Your task to perform on an android device: see sites visited before in the chrome app Image 0: 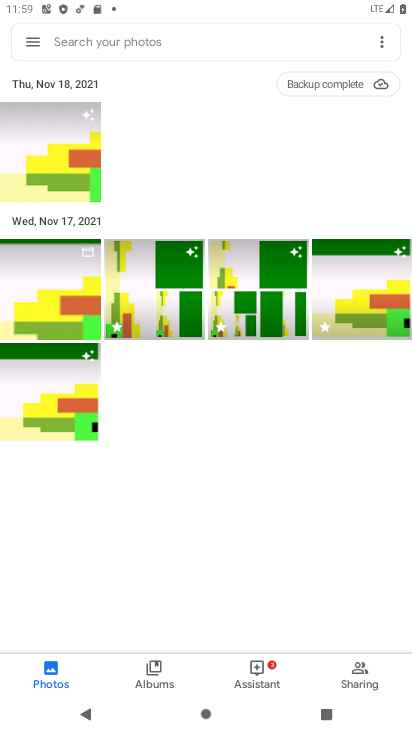
Step 0: press home button
Your task to perform on an android device: see sites visited before in the chrome app Image 1: 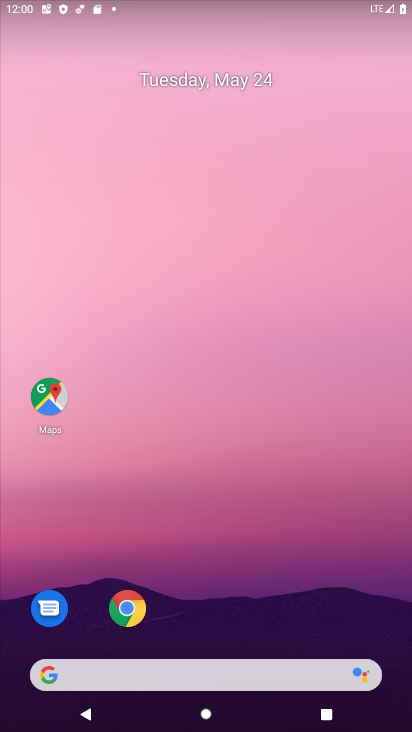
Step 1: click (123, 603)
Your task to perform on an android device: see sites visited before in the chrome app Image 2: 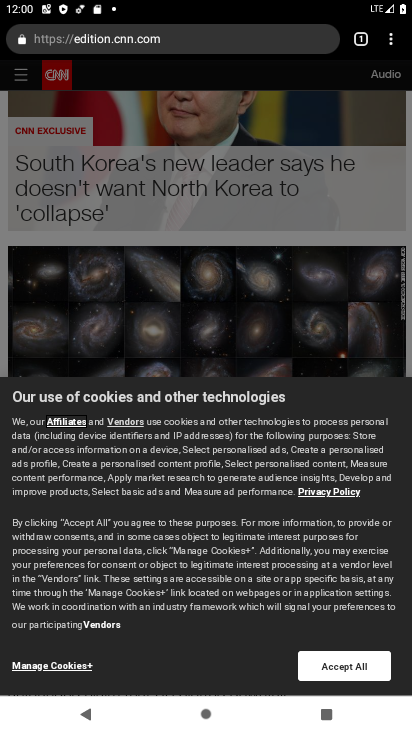
Step 2: click (353, 660)
Your task to perform on an android device: see sites visited before in the chrome app Image 3: 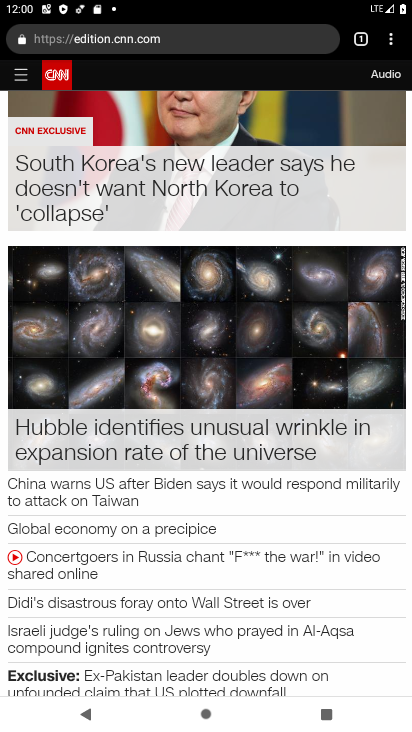
Step 3: click (389, 34)
Your task to perform on an android device: see sites visited before in the chrome app Image 4: 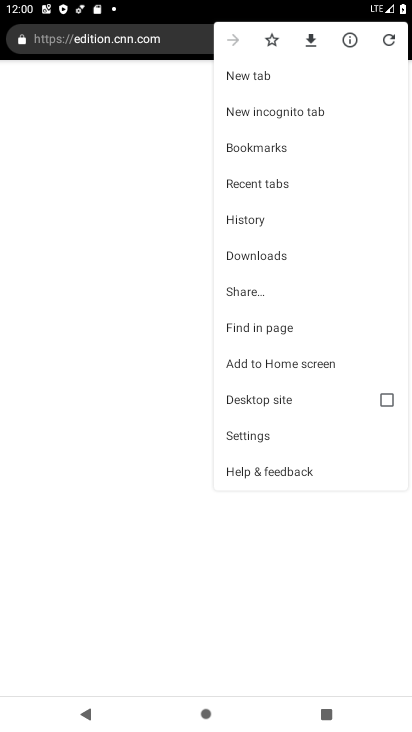
Step 4: click (272, 217)
Your task to perform on an android device: see sites visited before in the chrome app Image 5: 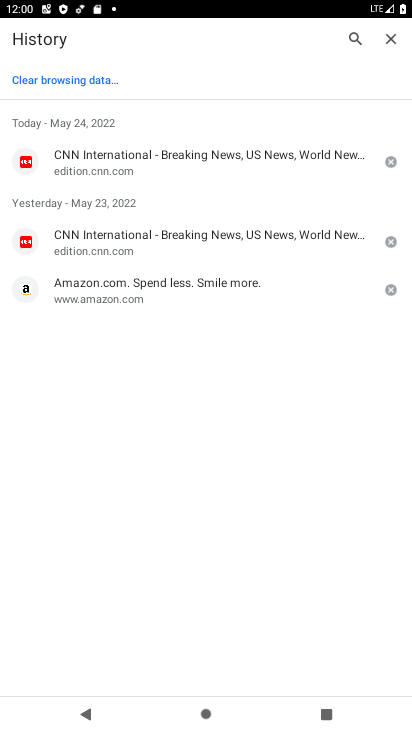
Step 5: task complete